Your task to perform on an android device: Search for Italian restaurants on Maps Image 0: 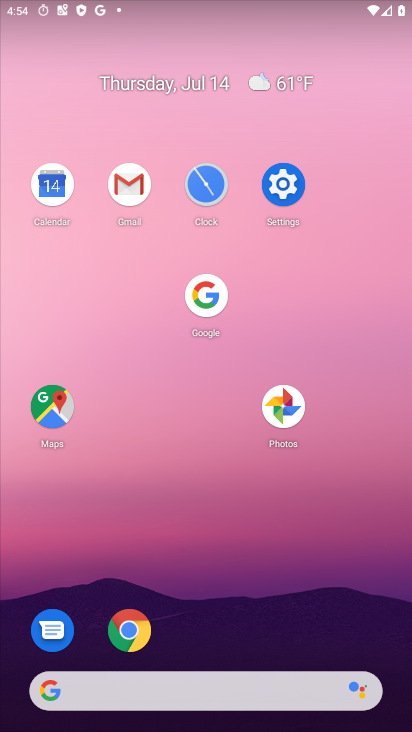
Step 0: click (42, 402)
Your task to perform on an android device: Search for Italian restaurants on Maps Image 1: 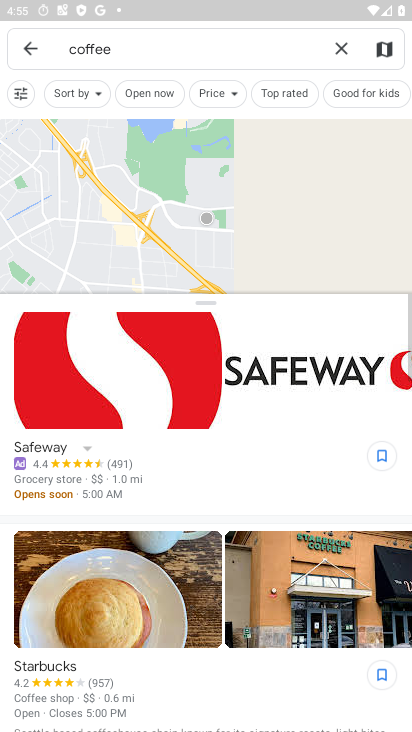
Step 1: click (342, 50)
Your task to perform on an android device: Search for Italian restaurants on Maps Image 2: 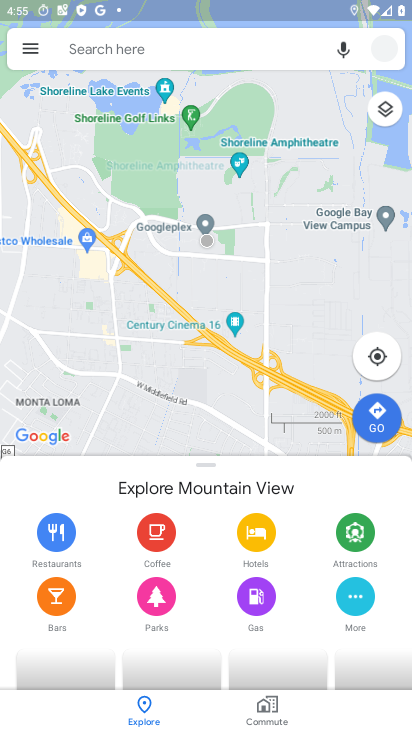
Step 2: click (231, 38)
Your task to perform on an android device: Search for Italian restaurants on Maps Image 3: 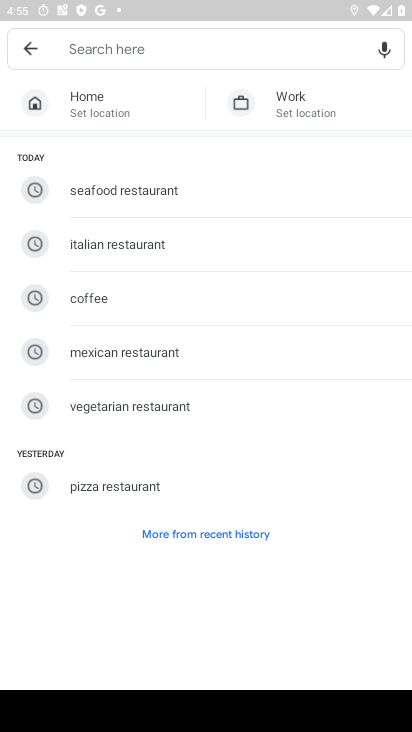
Step 3: click (230, 232)
Your task to perform on an android device: Search for Italian restaurants on Maps Image 4: 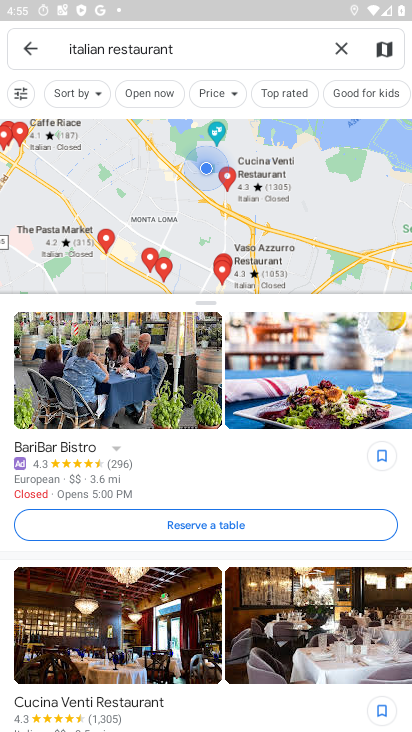
Step 4: task complete